Your task to perform on an android device: add a contact in the contacts app Image 0: 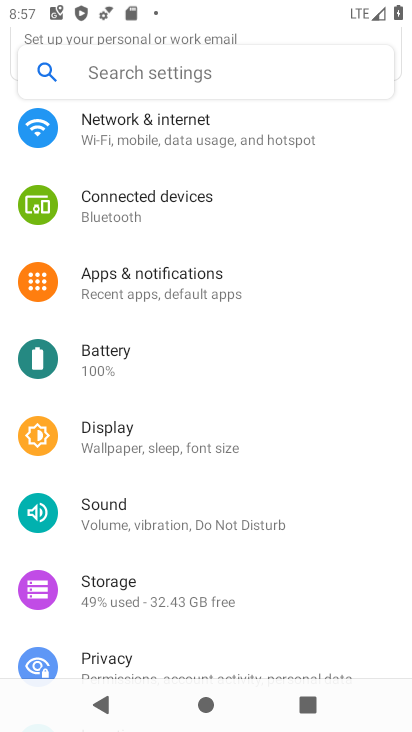
Step 0: press home button
Your task to perform on an android device: add a contact in the contacts app Image 1: 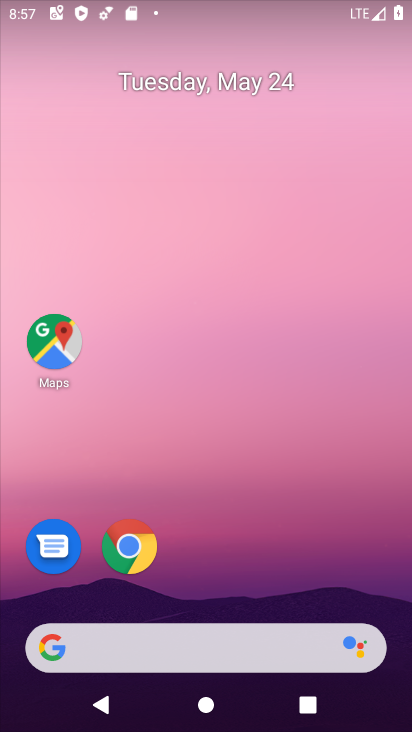
Step 1: drag from (239, 587) to (278, 22)
Your task to perform on an android device: add a contact in the contacts app Image 2: 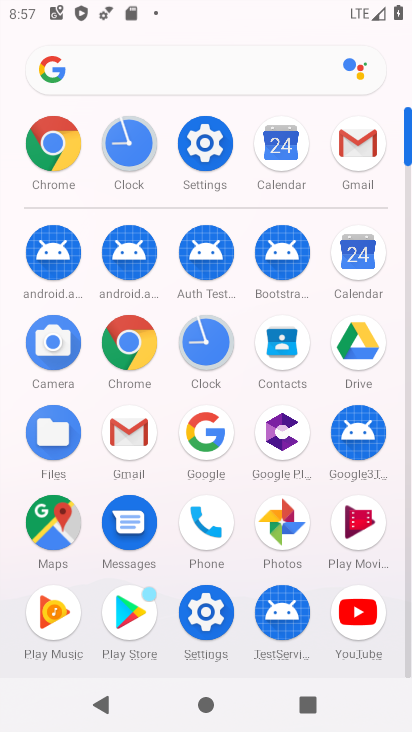
Step 2: click (270, 337)
Your task to perform on an android device: add a contact in the contacts app Image 3: 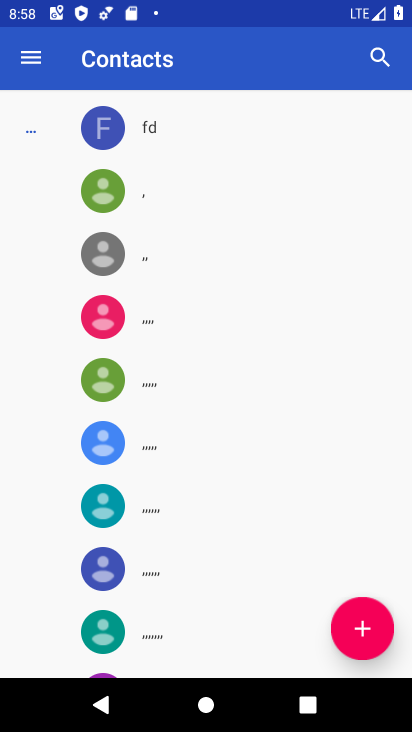
Step 3: click (362, 626)
Your task to perform on an android device: add a contact in the contacts app Image 4: 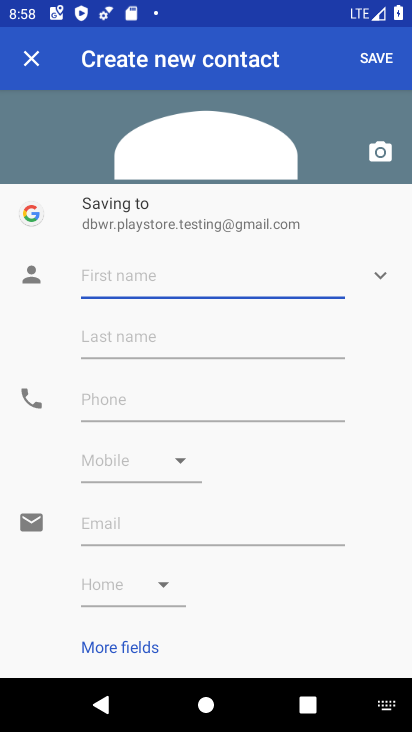
Step 4: type "Bharat Shatrughan"
Your task to perform on an android device: add a contact in the contacts app Image 5: 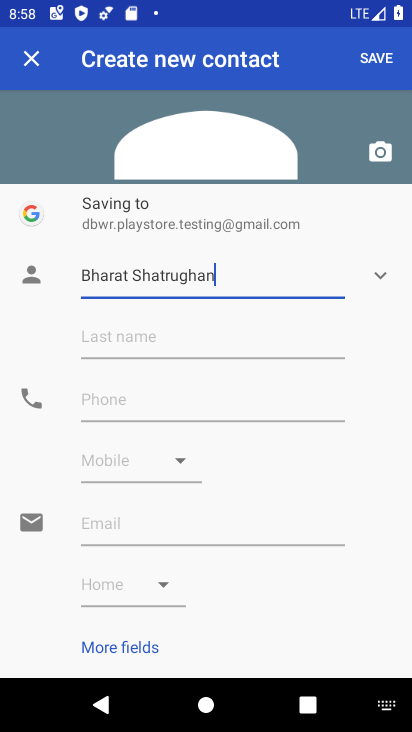
Step 5: click (239, 403)
Your task to perform on an android device: add a contact in the contacts app Image 6: 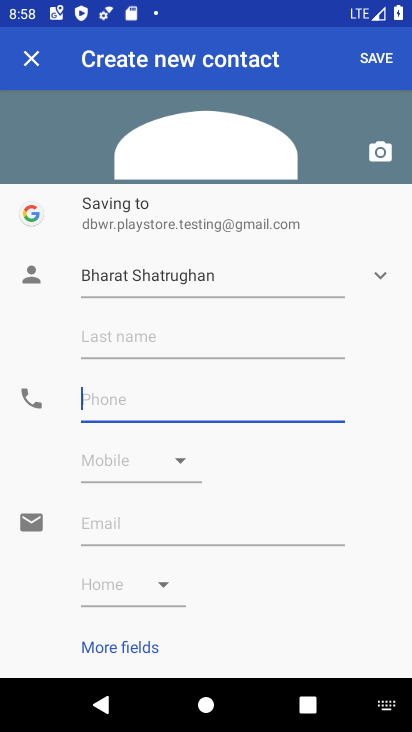
Step 6: type "011222334455"
Your task to perform on an android device: add a contact in the contacts app Image 7: 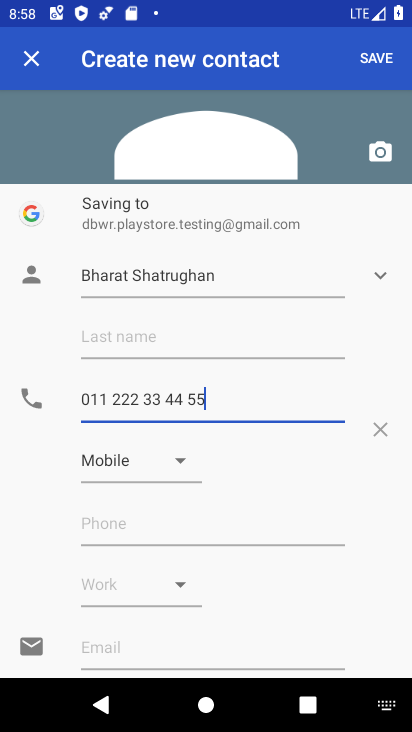
Step 7: click (382, 64)
Your task to perform on an android device: add a contact in the contacts app Image 8: 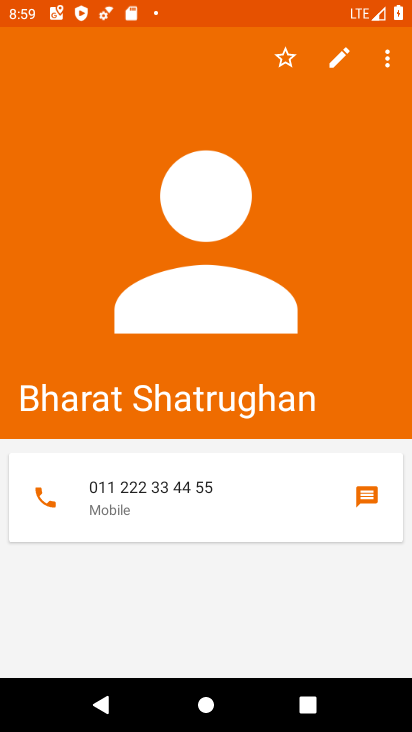
Step 8: task complete